Your task to perform on an android device: open app "Adobe Acrobat Reader" (install if not already installed) and go to login screen Image 0: 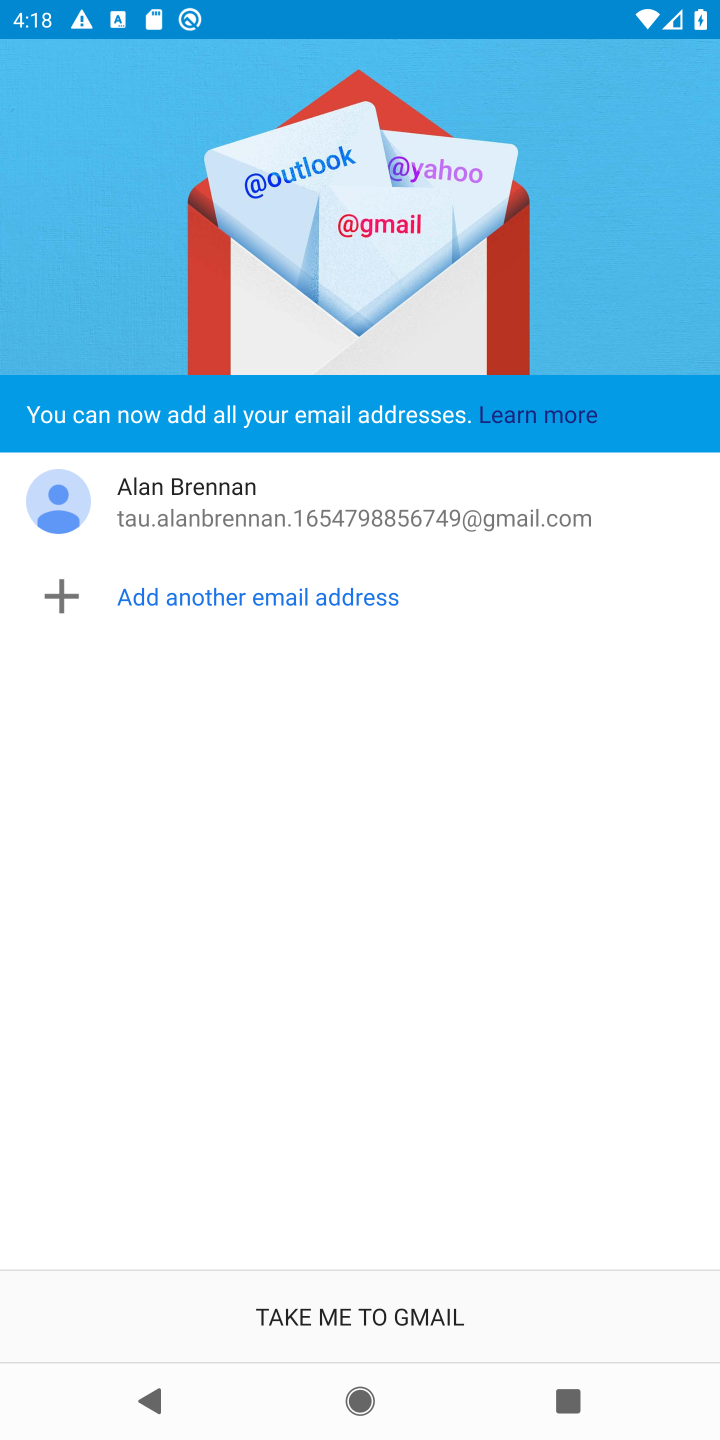
Step 0: press home button
Your task to perform on an android device: open app "Adobe Acrobat Reader" (install if not already installed) and go to login screen Image 1: 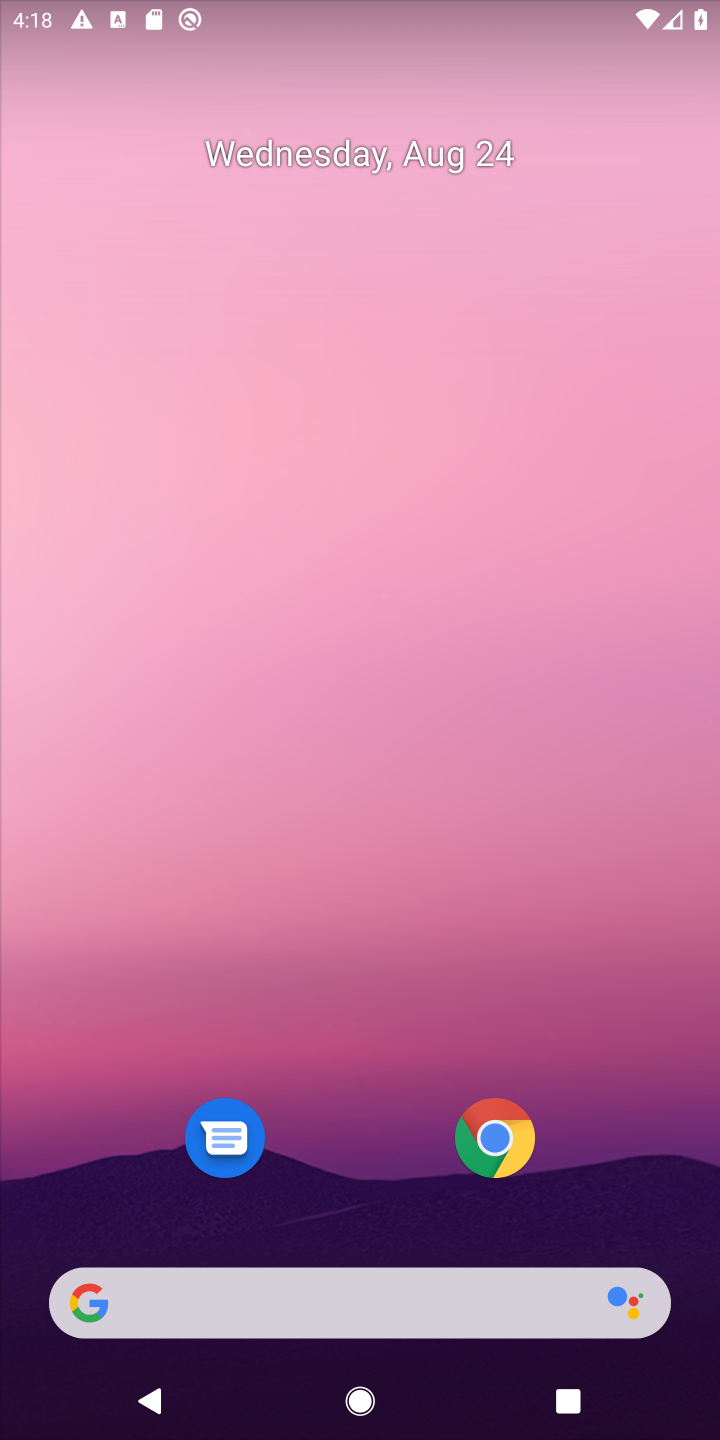
Step 1: drag from (383, 944) to (383, 315)
Your task to perform on an android device: open app "Adobe Acrobat Reader" (install if not already installed) and go to login screen Image 2: 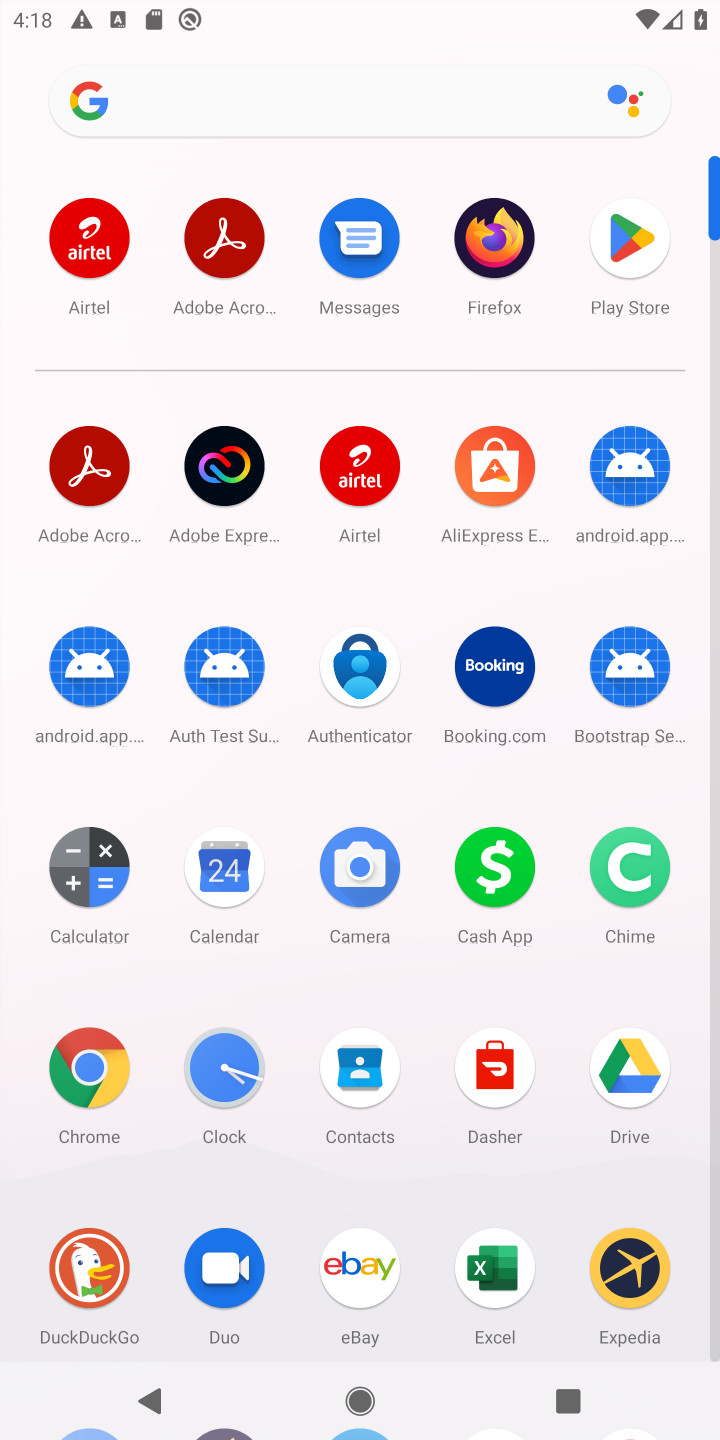
Step 2: click (628, 240)
Your task to perform on an android device: open app "Adobe Acrobat Reader" (install if not already installed) and go to login screen Image 3: 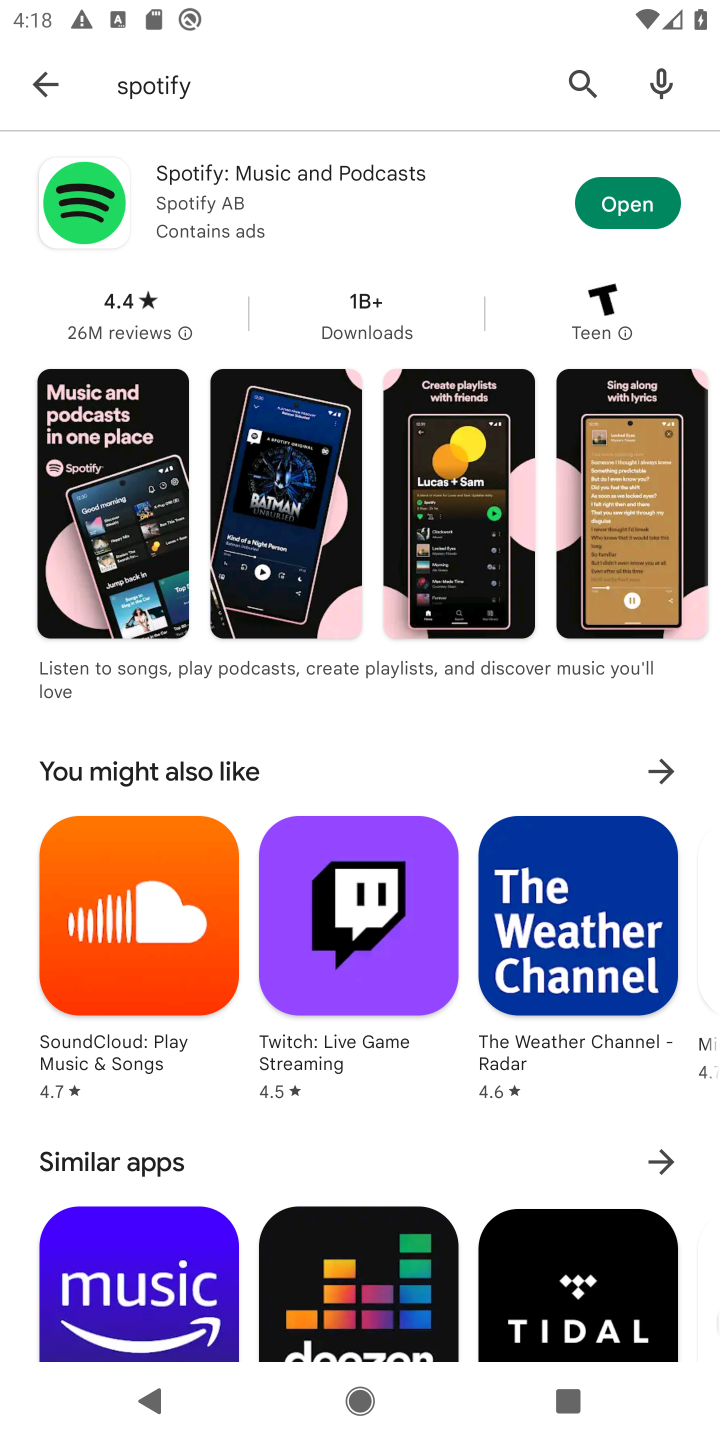
Step 3: click (573, 77)
Your task to perform on an android device: open app "Adobe Acrobat Reader" (install if not already installed) and go to login screen Image 4: 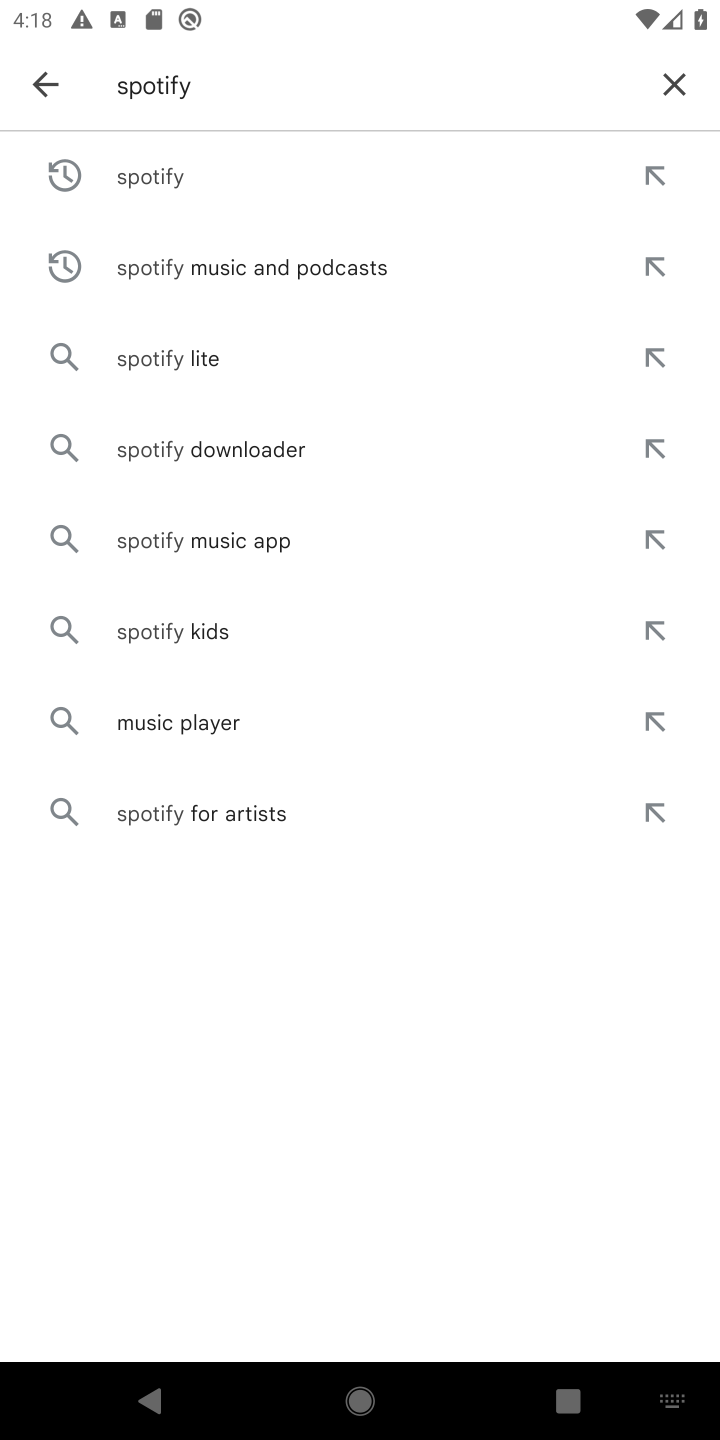
Step 4: click (683, 76)
Your task to perform on an android device: open app "Adobe Acrobat Reader" (install if not already installed) and go to login screen Image 5: 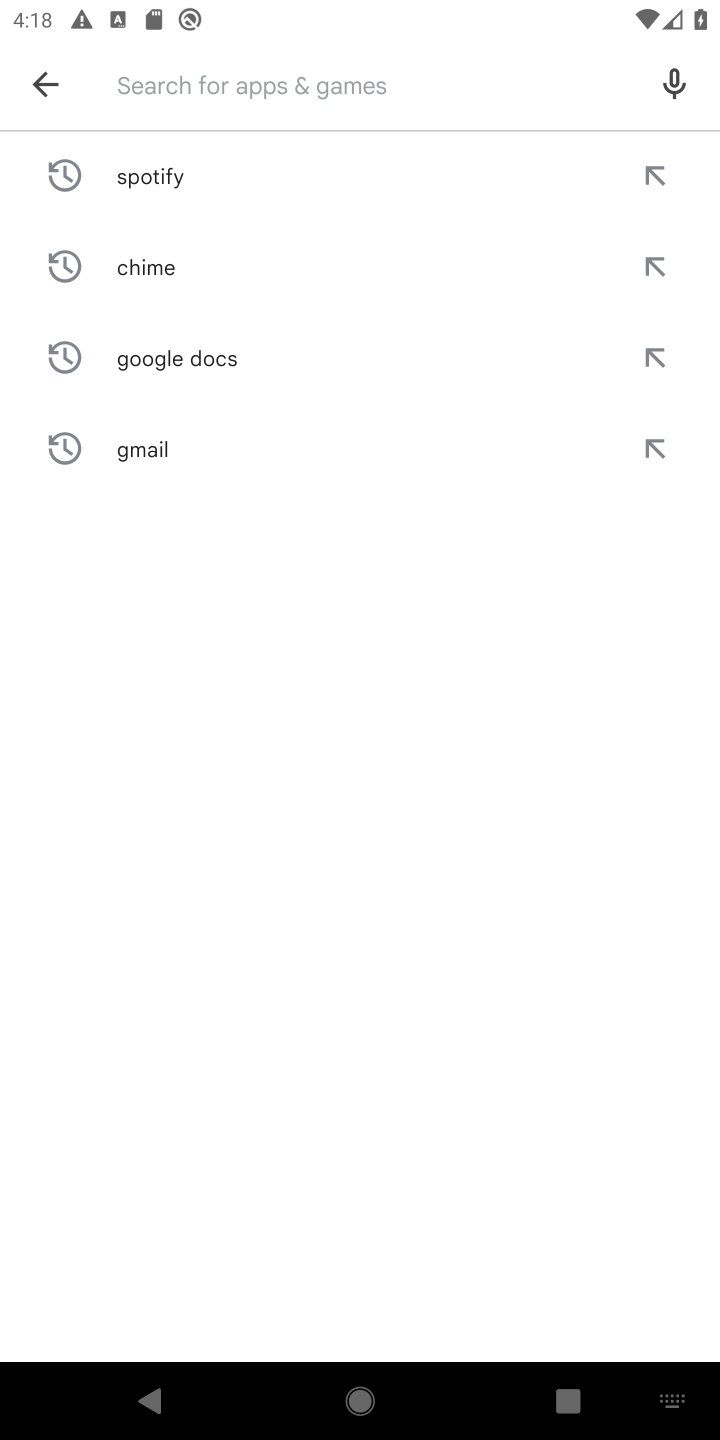
Step 5: type "Adobe Acrobat Reader"
Your task to perform on an android device: open app "Adobe Acrobat Reader" (install if not already installed) and go to login screen Image 6: 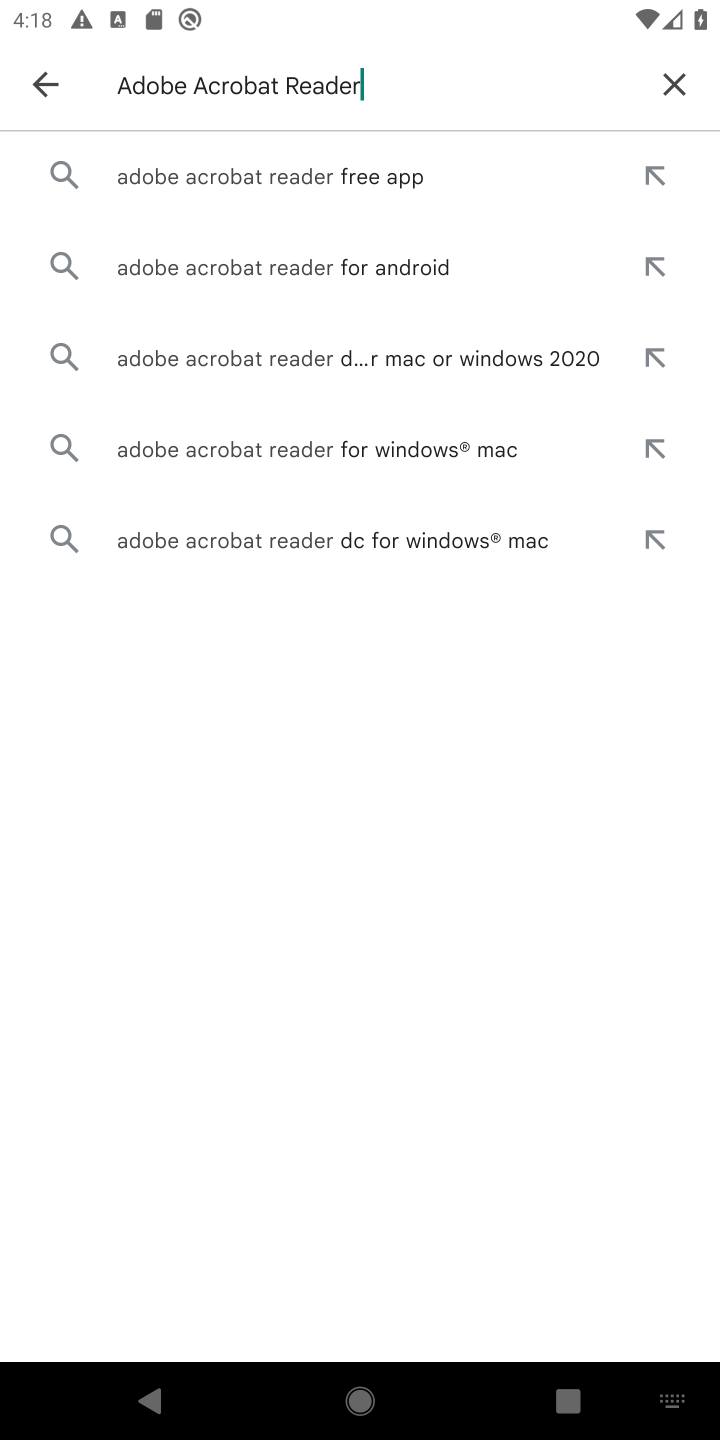
Step 6: click (295, 172)
Your task to perform on an android device: open app "Adobe Acrobat Reader" (install if not already installed) and go to login screen Image 7: 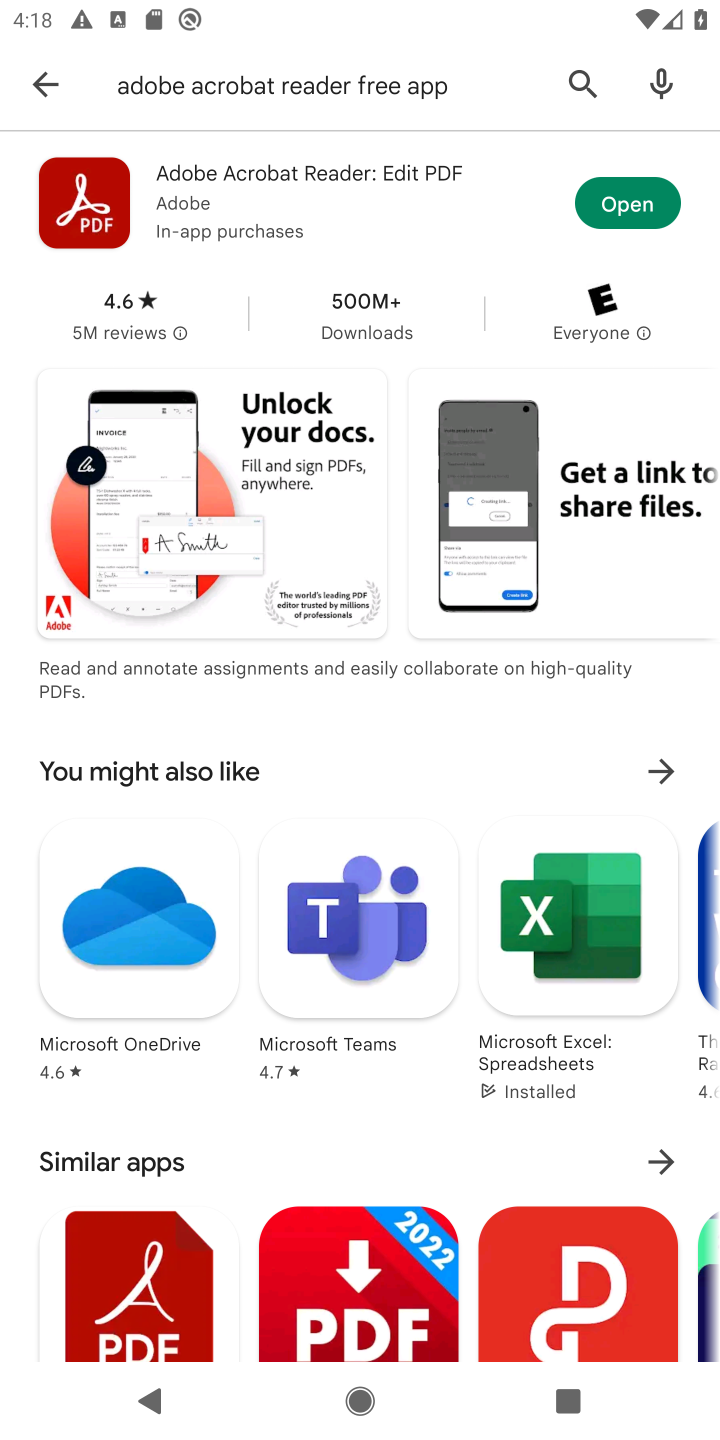
Step 7: click (617, 209)
Your task to perform on an android device: open app "Adobe Acrobat Reader" (install if not already installed) and go to login screen Image 8: 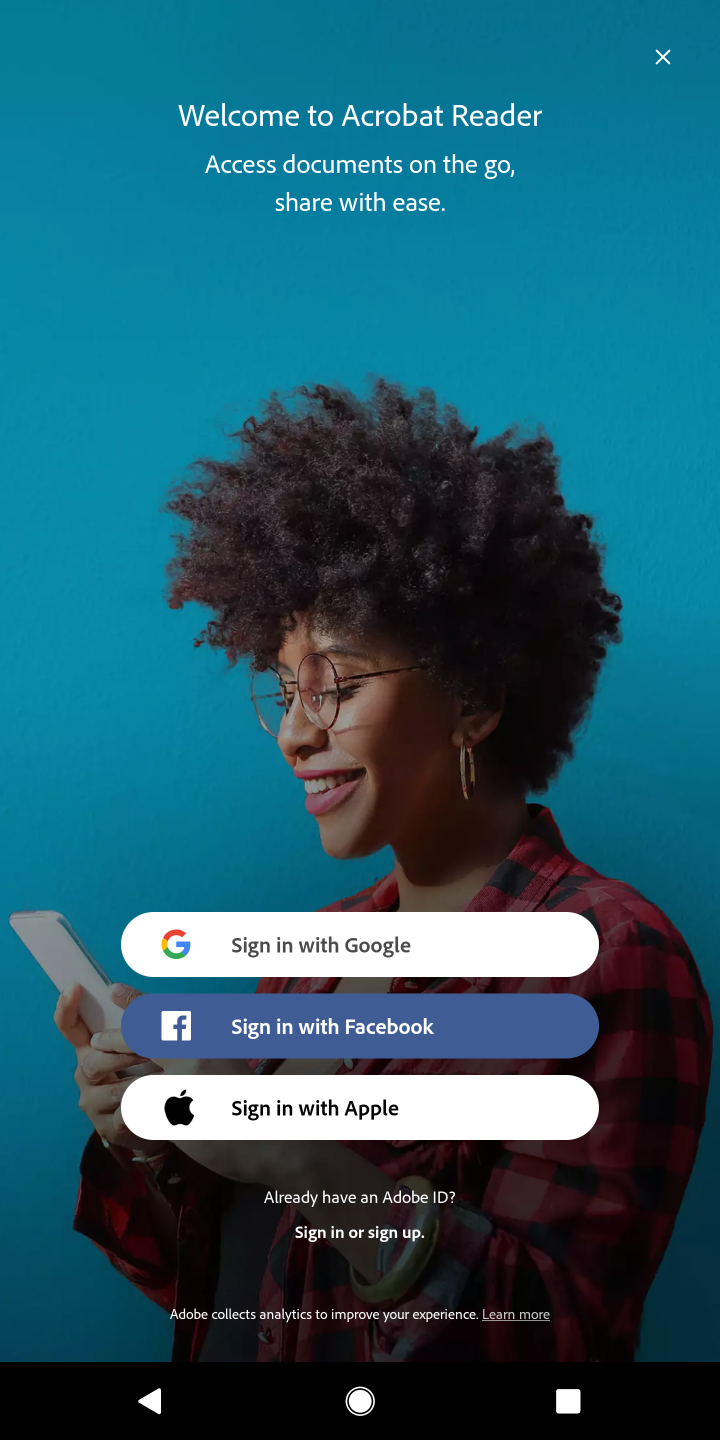
Step 8: task complete